Your task to perform on an android device: Go to Google maps Image 0: 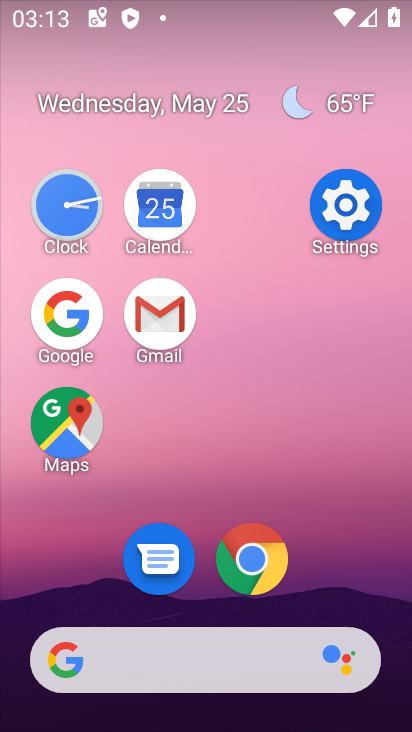
Step 0: click (57, 438)
Your task to perform on an android device: Go to Google maps Image 1: 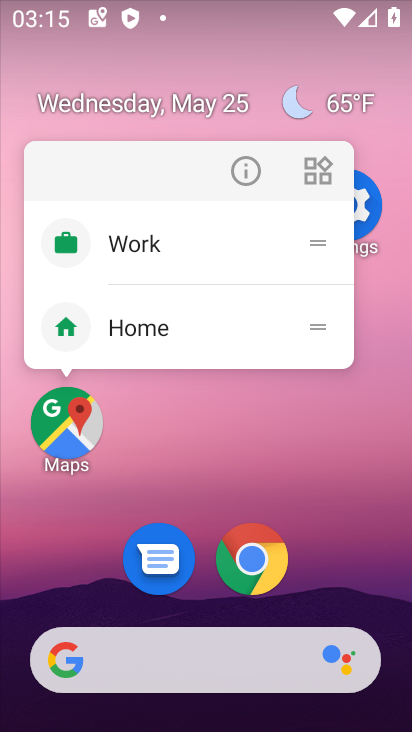
Step 1: click (199, 426)
Your task to perform on an android device: Go to Google maps Image 2: 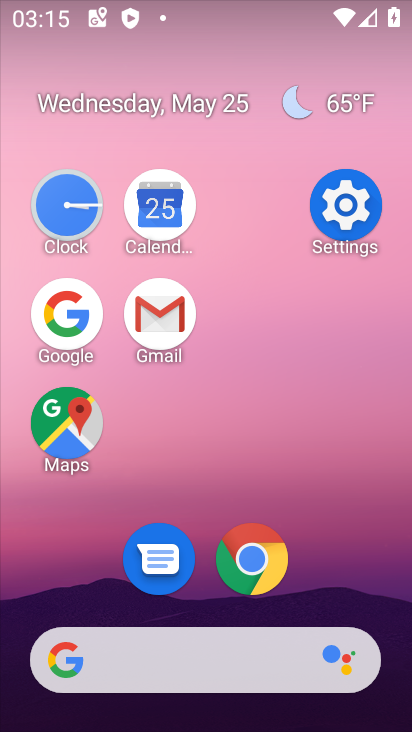
Step 2: click (81, 415)
Your task to perform on an android device: Go to Google maps Image 3: 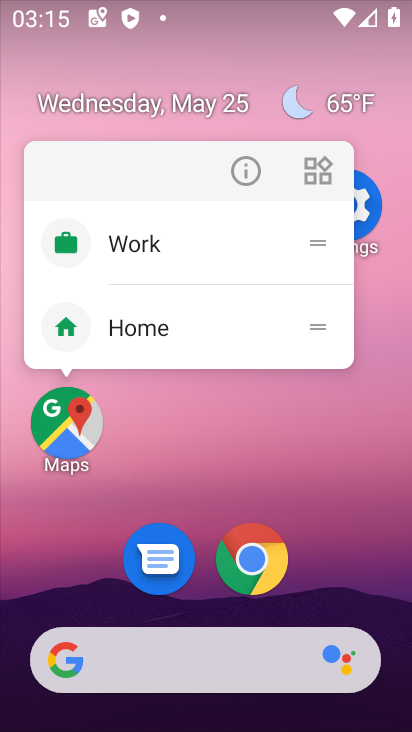
Step 3: click (81, 415)
Your task to perform on an android device: Go to Google maps Image 4: 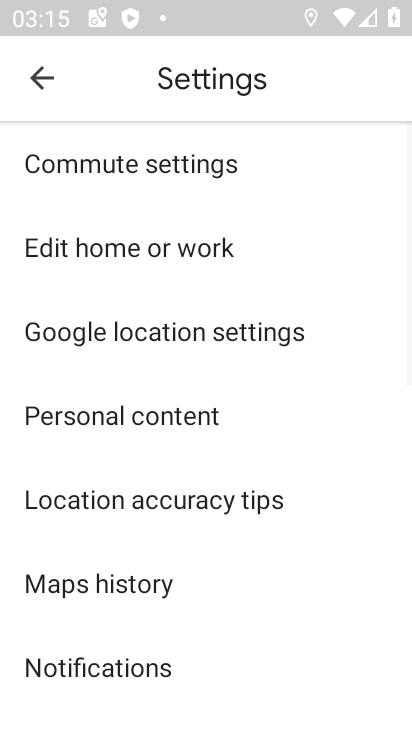
Step 4: task complete